Your task to perform on an android device: Open calendar and show me the first week of next month Image 0: 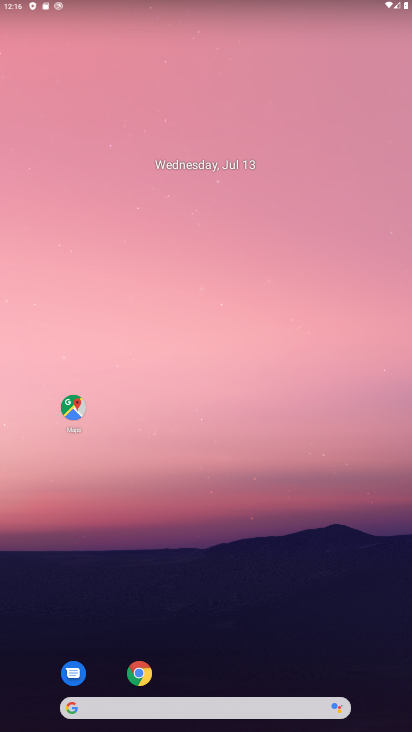
Step 0: drag from (281, 618) to (271, 110)
Your task to perform on an android device: Open calendar and show me the first week of next month Image 1: 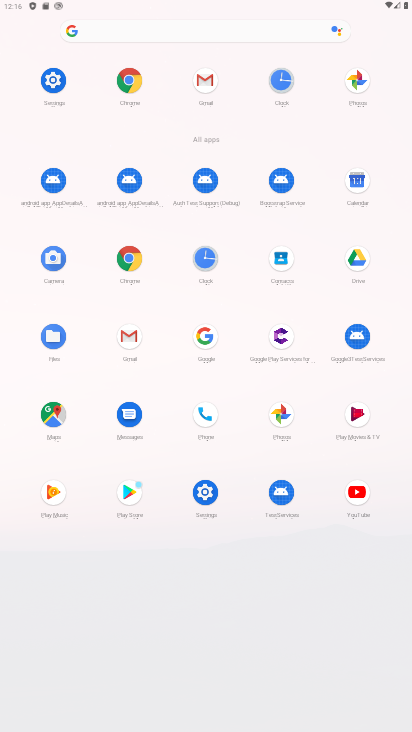
Step 1: click (349, 181)
Your task to perform on an android device: Open calendar and show me the first week of next month Image 2: 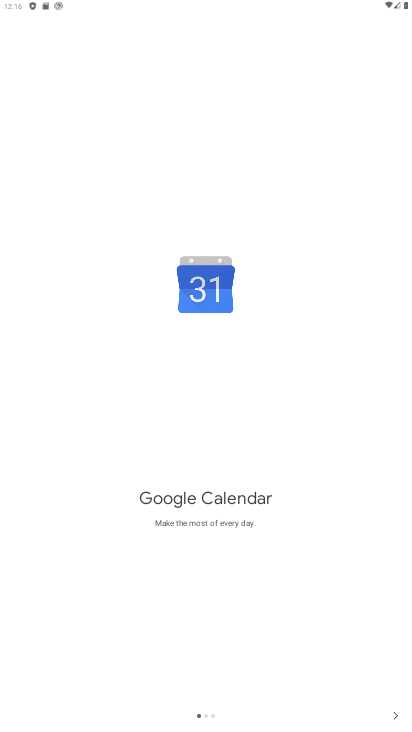
Step 2: click (395, 718)
Your task to perform on an android device: Open calendar and show me the first week of next month Image 3: 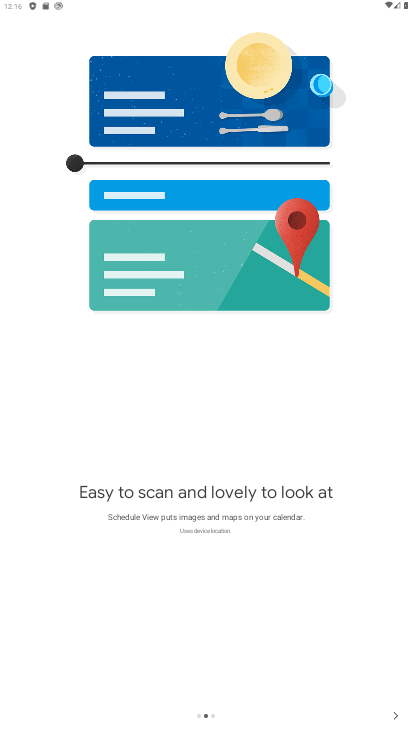
Step 3: click (395, 718)
Your task to perform on an android device: Open calendar and show me the first week of next month Image 4: 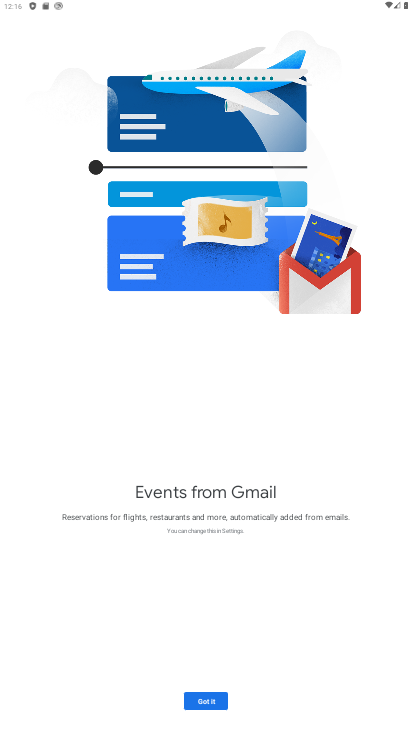
Step 4: click (210, 704)
Your task to perform on an android device: Open calendar and show me the first week of next month Image 5: 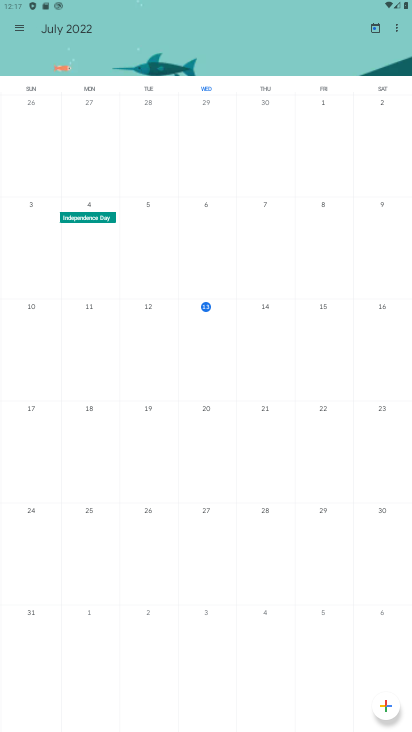
Step 5: task complete